Your task to perform on an android device: Open Google Chrome and open the bookmarks view Image 0: 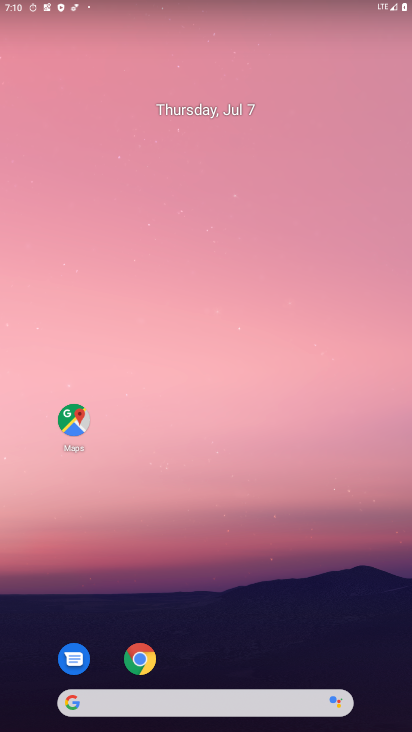
Step 0: drag from (370, 673) to (208, 0)
Your task to perform on an android device: Open Google Chrome and open the bookmarks view Image 1: 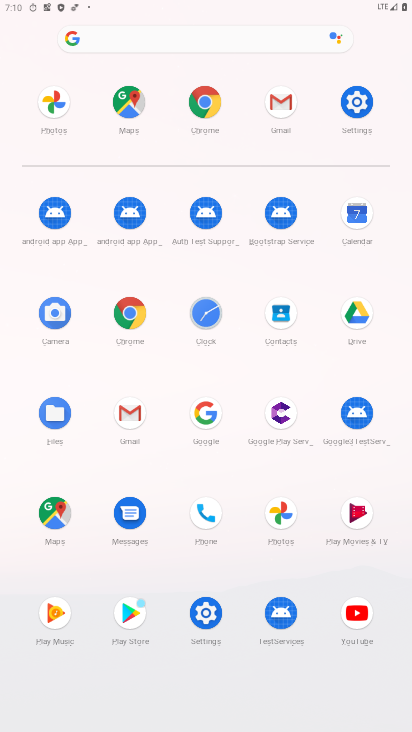
Step 1: click (208, 87)
Your task to perform on an android device: Open Google Chrome and open the bookmarks view Image 2: 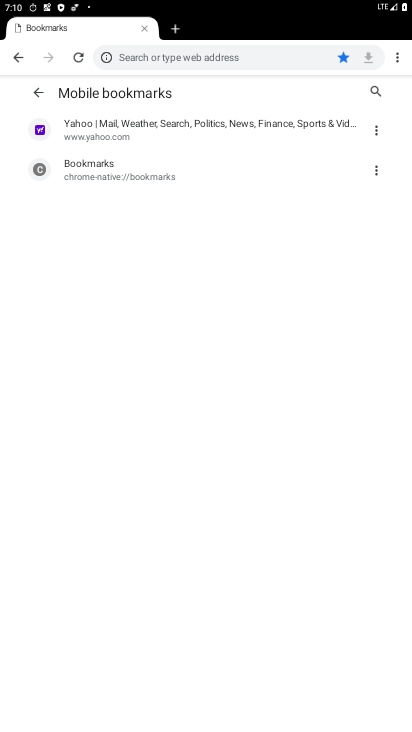
Step 2: task complete